Your task to perform on an android device: see sites visited before in the chrome app Image 0: 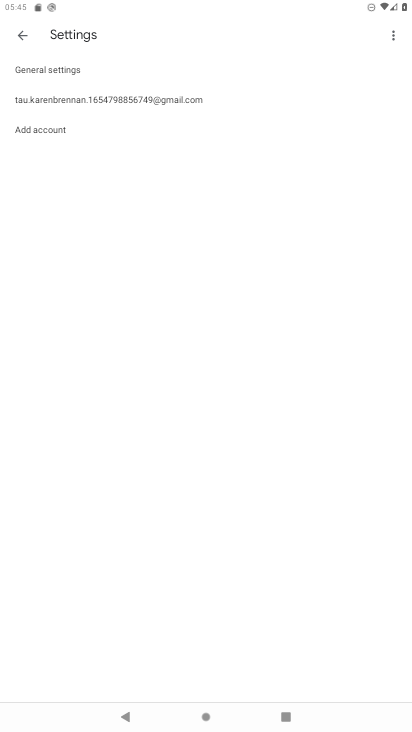
Step 0: press home button
Your task to perform on an android device: see sites visited before in the chrome app Image 1: 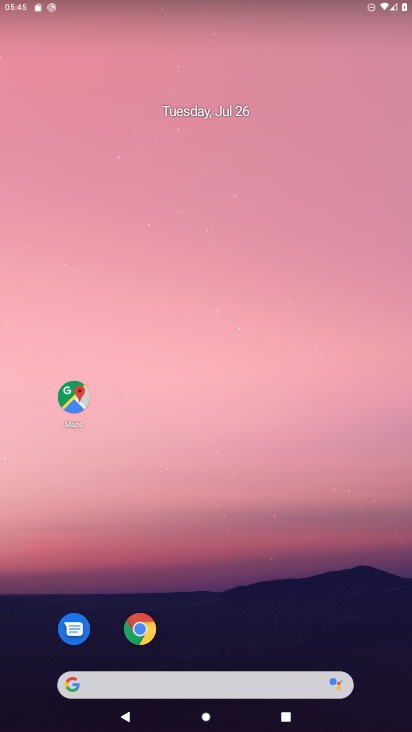
Step 1: click (136, 633)
Your task to perform on an android device: see sites visited before in the chrome app Image 2: 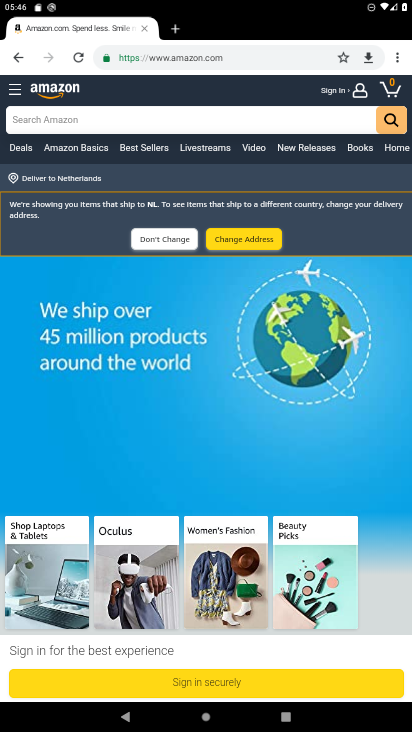
Step 2: click (397, 55)
Your task to perform on an android device: see sites visited before in the chrome app Image 3: 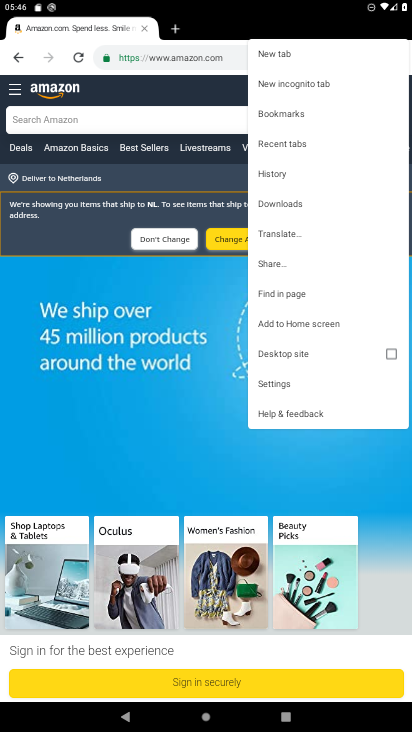
Step 3: click (279, 167)
Your task to perform on an android device: see sites visited before in the chrome app Image 4: 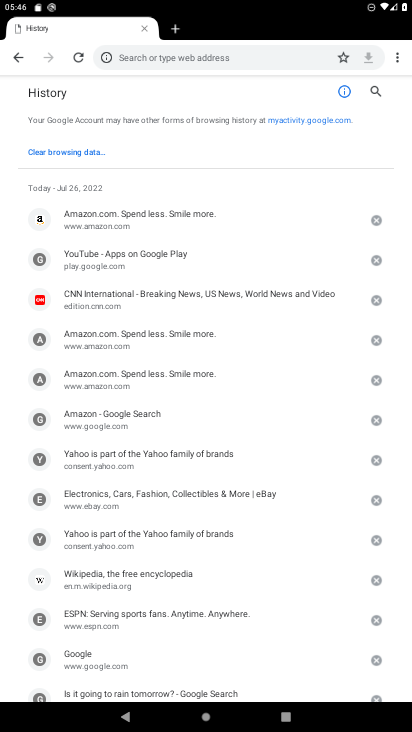
Step 4: task complete